Your task to perform on an android device: Go to Yahoo.com Image 0: 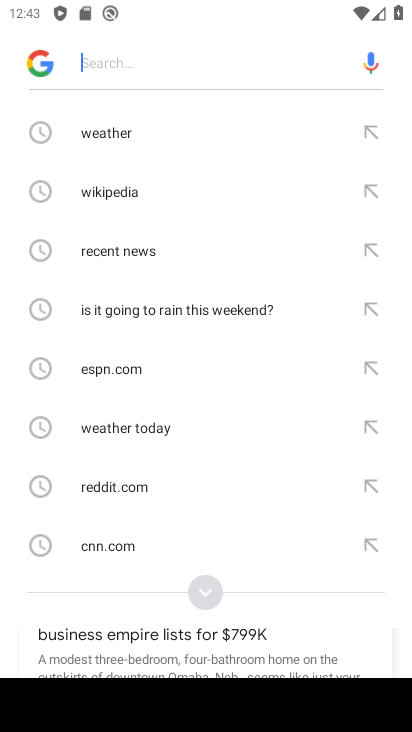
Step 0: type "Yahoo.com"
Your task to perform on an android device: Go to Yahoo.com Image 1: 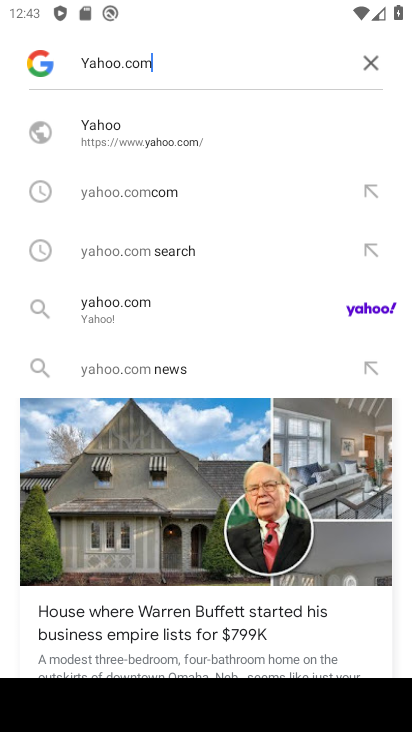
Step 1: task complete